Your task to perform on an android device: Show me the alarms in the clock app Image 0: 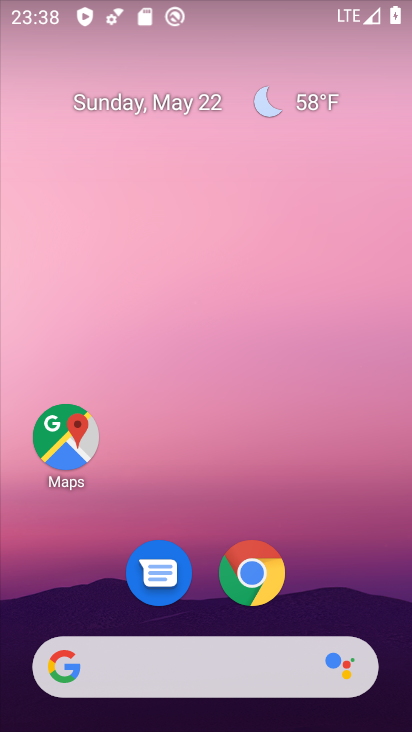
Step 0: drag from (211, 580) to (235, 56)
Your task to perform on an android device: Show me the alarms in the clock app Image 1: 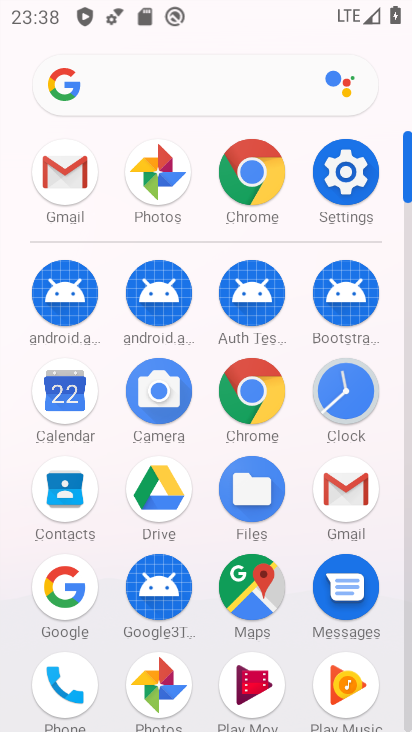
Step 1: click (347, 394)
Your task to perform on an android device: Show me the alarms in the clock app Image 2: 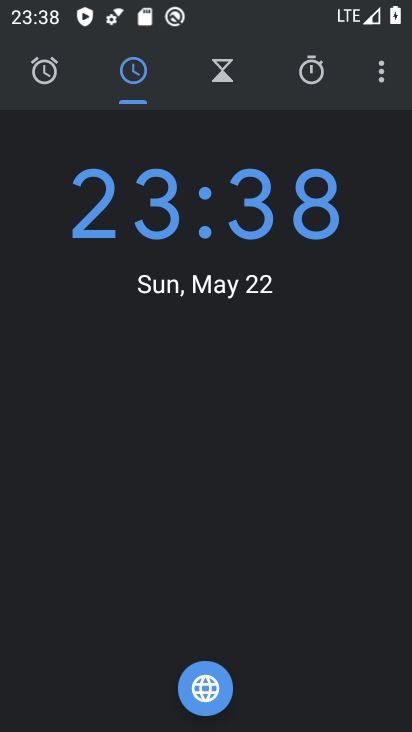
Step 2: click (60, 85)
Your task to perform on an android device: Show me the alarms in the clock app Image 3: 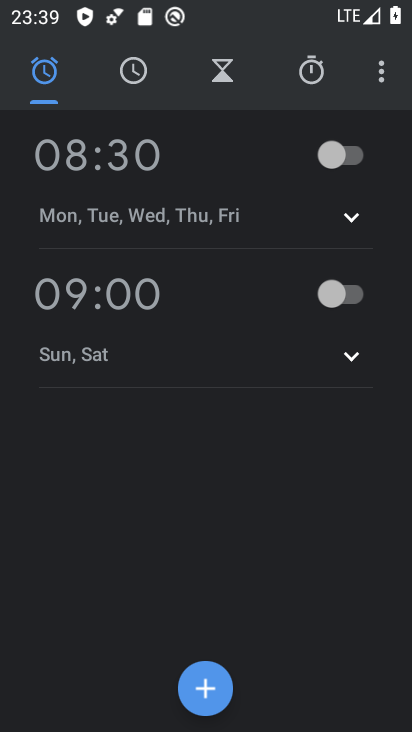
Step 3: task complete